Your task to perform on an android device: turn on notifications settings in the gmail app Image 0: 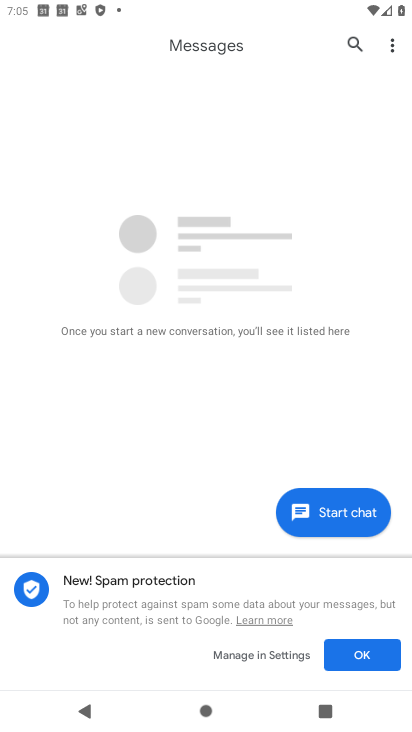
Step 0: press back button
Your task to perform on an android device: turn on notifications settings in the gmail app Image 1: 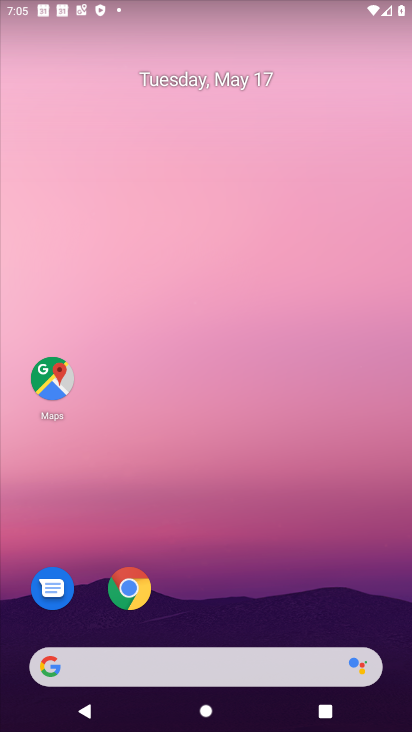
Step 1: drag from (245, 578) to (242, 97)
Your task to perform on an android device: turn on notifications settings in the gmail app Image 2: 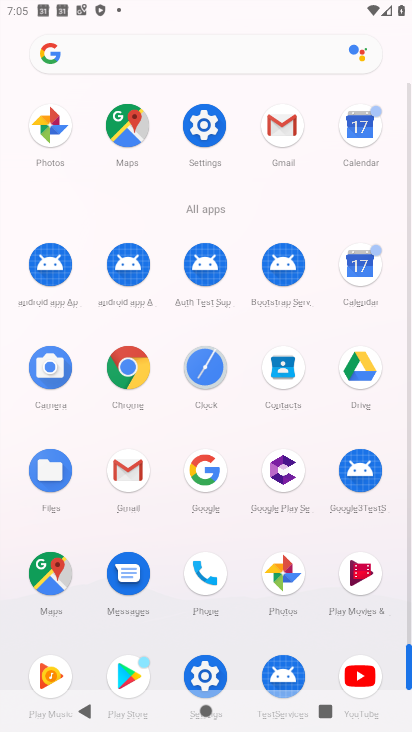
Step 2: click (284, 124)
Your task to perform on an android device: turn on notifications settings in the gmail app Image 3: 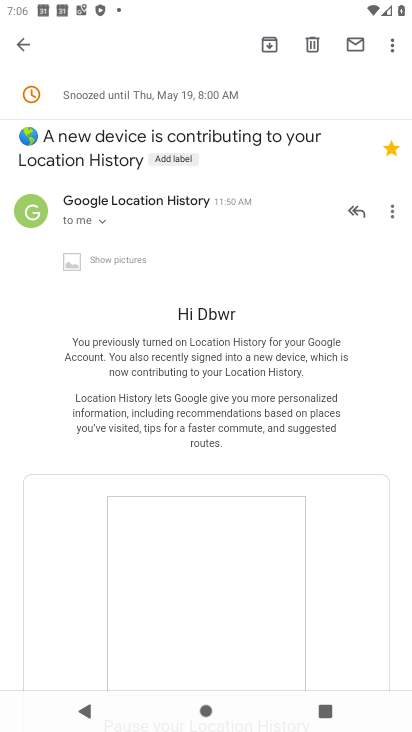
Step 3: press back button
Your task to perform on an android device: turn on notifications settings in the gmail app Image 4: 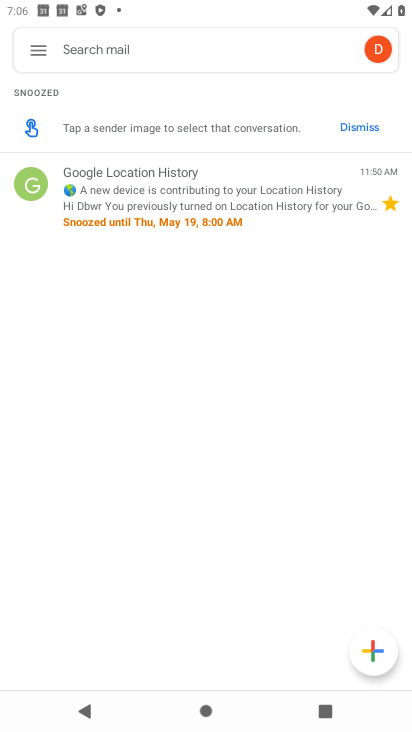
Step 4: click (38, 45)
Your task to perform on an android device: turn on notifications settings in the gmail app Image 5: 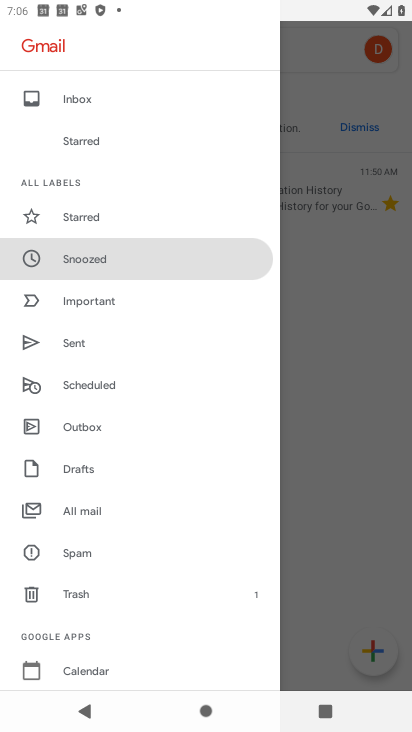
Step 5: drag from (100, 537) to (118, 465)
Your task to perform on an android device: turn on notifications settings in the gmail app Image 6: 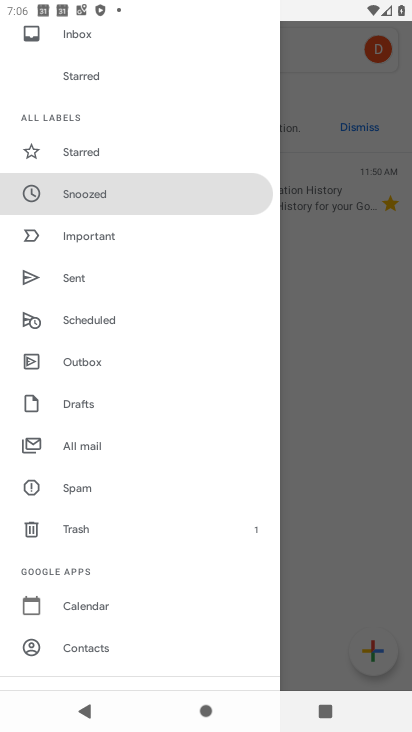
Step 6: drag from (131, 628) to (137, 544)
Your task to perform on an android device: turn on notifications settings in the gmail app Image 7: 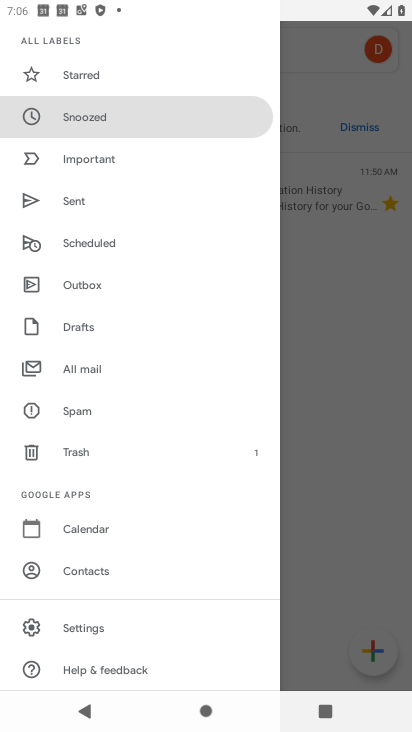
Step 7: click (83, 628)
Your task to perform on an android device: turn on notifications settings in the gmail app Image 8: 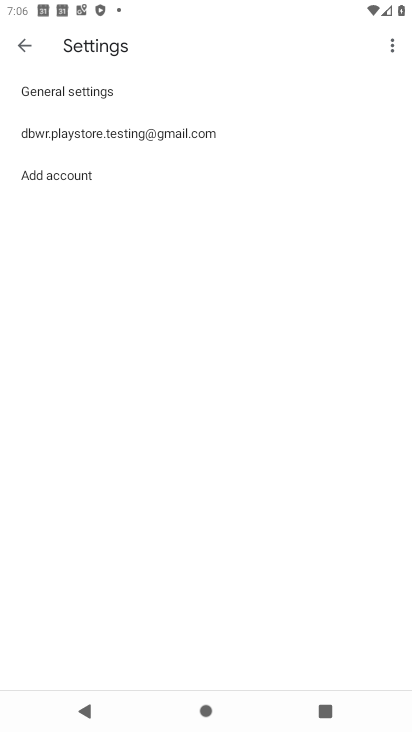
Step 8: click (184, 135)
Your task to perform on an android device: turn on notifications settings in the gmail app Image 9: 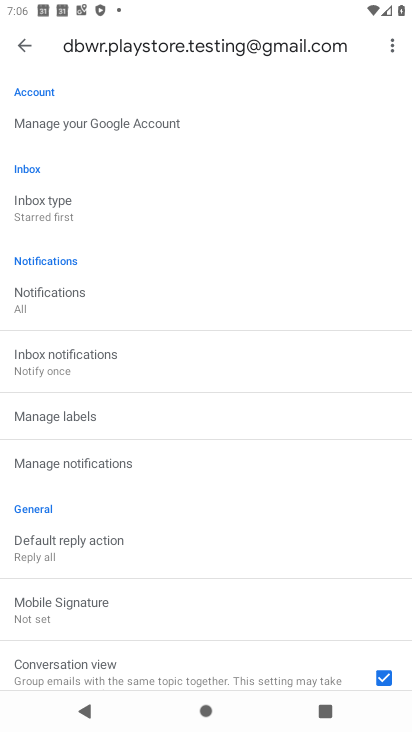
Step 9: click (123, 465)
Your task to perform on an android device: turn on notifications settings in the gmail app Image 10: 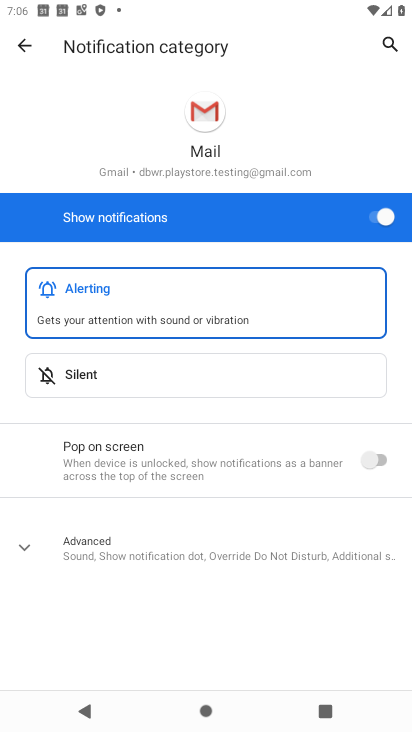
Step 10: task complete